Your task to perform on an android device: Go to Reddit.com Image 0: 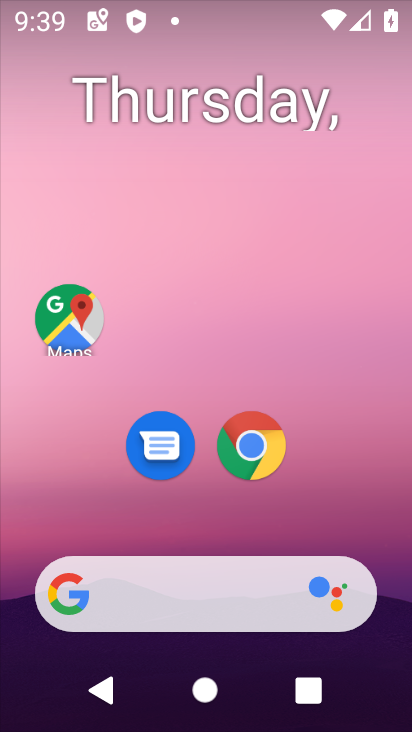
Step 0: click (239, 445)
Your task to perform on an android device: Go to Reddit.com Image 1: 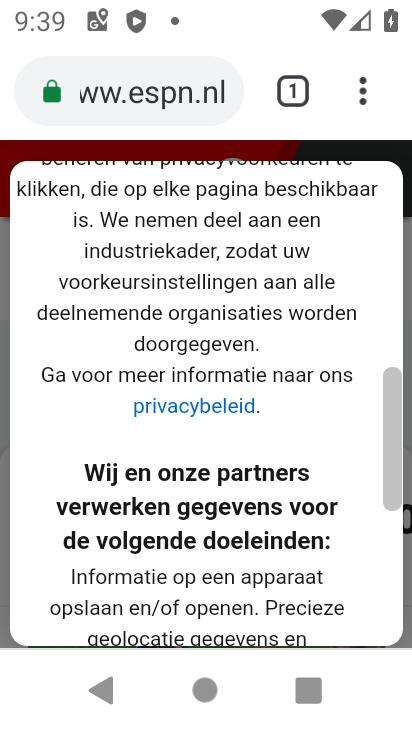
Step 1: click (101, 686)
Your task to perform on an android device: Go to Reddit.com Image 2: 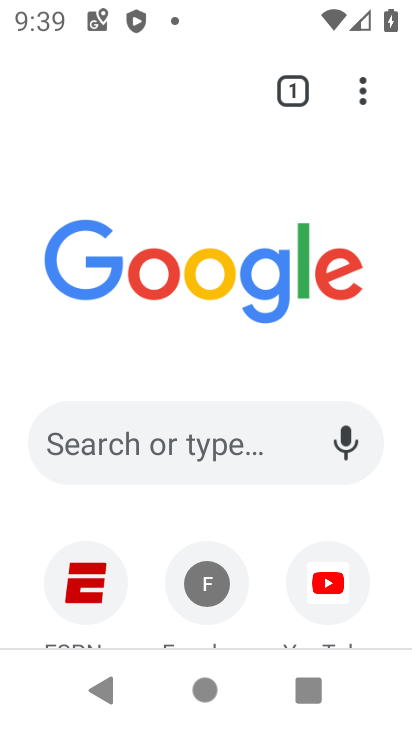
Step 2: drag from (149, 619) to (199, 285)
Your task to perform on an android device: Go to Reddit.com Image 3: 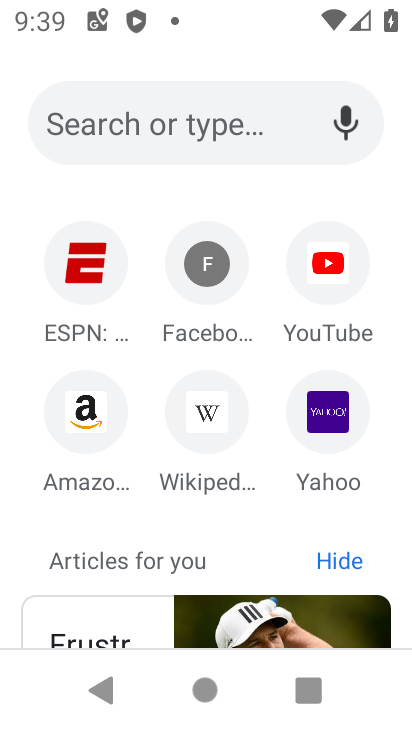
Step 3: click (165, 134)
Your task to perform on an android device: Go to Reddit.com Image 4: 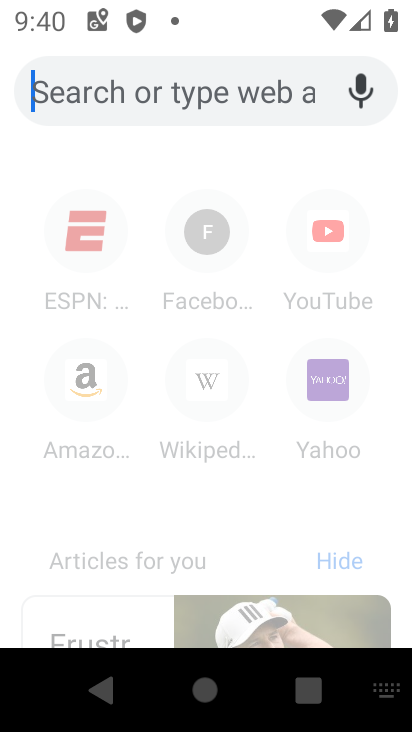
Step 4: type "reddit.com"
Your task to perform on an android device: Go to Reddit.com Image 5: 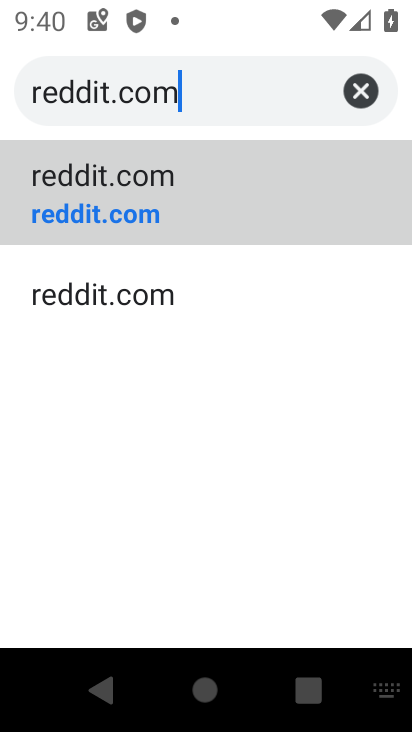
Step 5: click (125, 221)
Your task to perform on an android device: Go to Reddit.com Image 6: 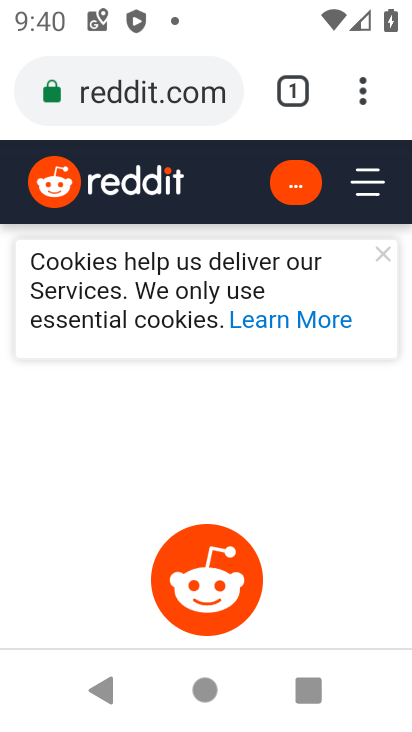
Step 6: drag from (278, 581) to (317, 275)
Your task to perform on an android device: Go to Reddit.com Image 7: 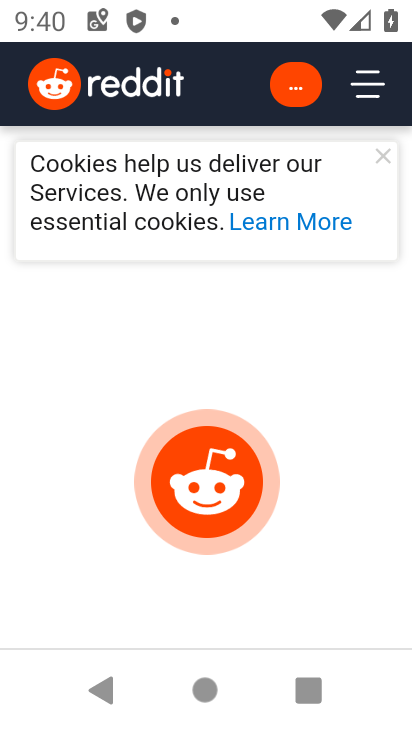
Step 7: click (380, 155)
Your task to perform on an android device: Go to Reddit.com Image 8: 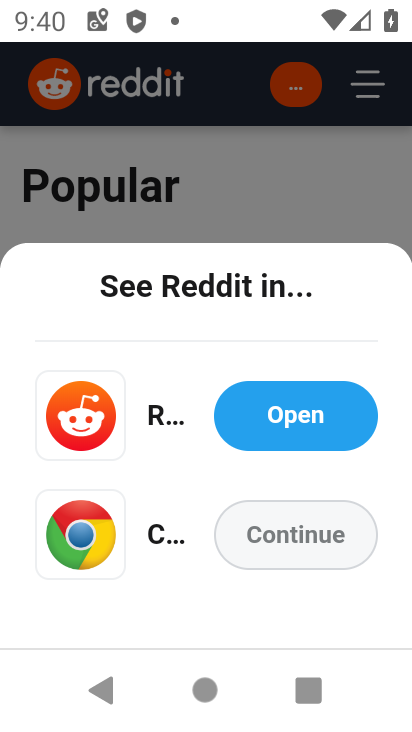
Step 8: drag from (277, 582) to (276, 270)
Your task to perform on an android device: Go to Reddit.com Image 9: 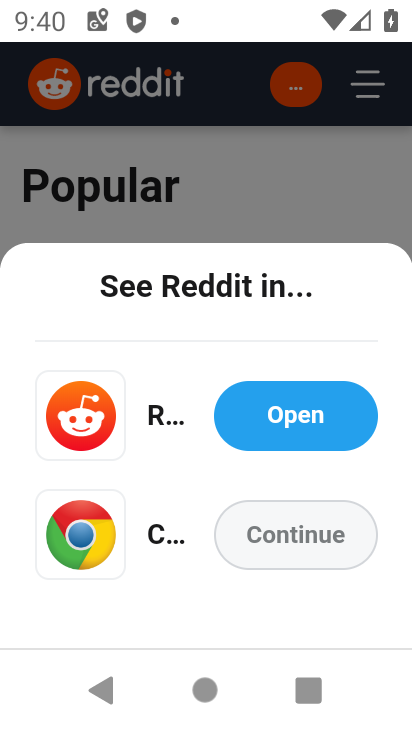
Step 9: click (311, 542)
Your task to perform on an android device: Go to Reddit.com Image 10: 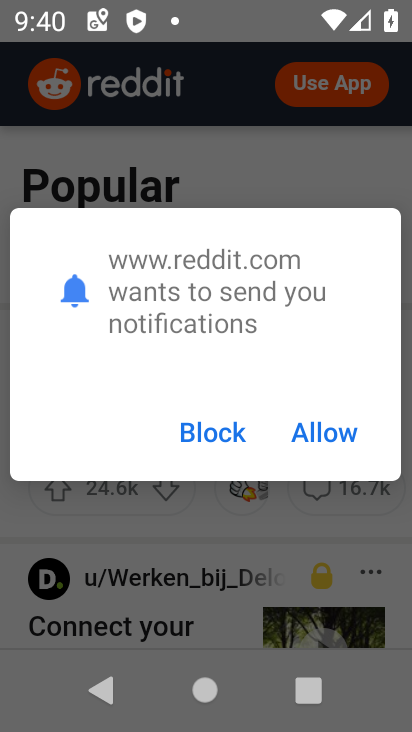
Step 10: click (199, 436)
Your task to perform on an android device: Go to Reddit.com Image 11: 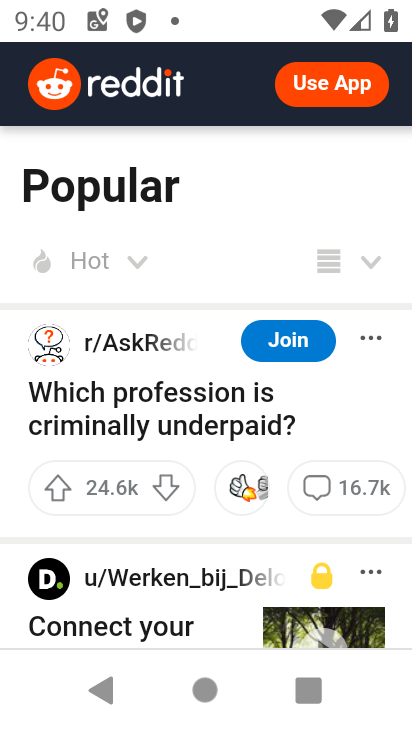
Step 11: task complete